Your task to perform on an android device: Clear the shopping cart on ebay.com. Image 0: 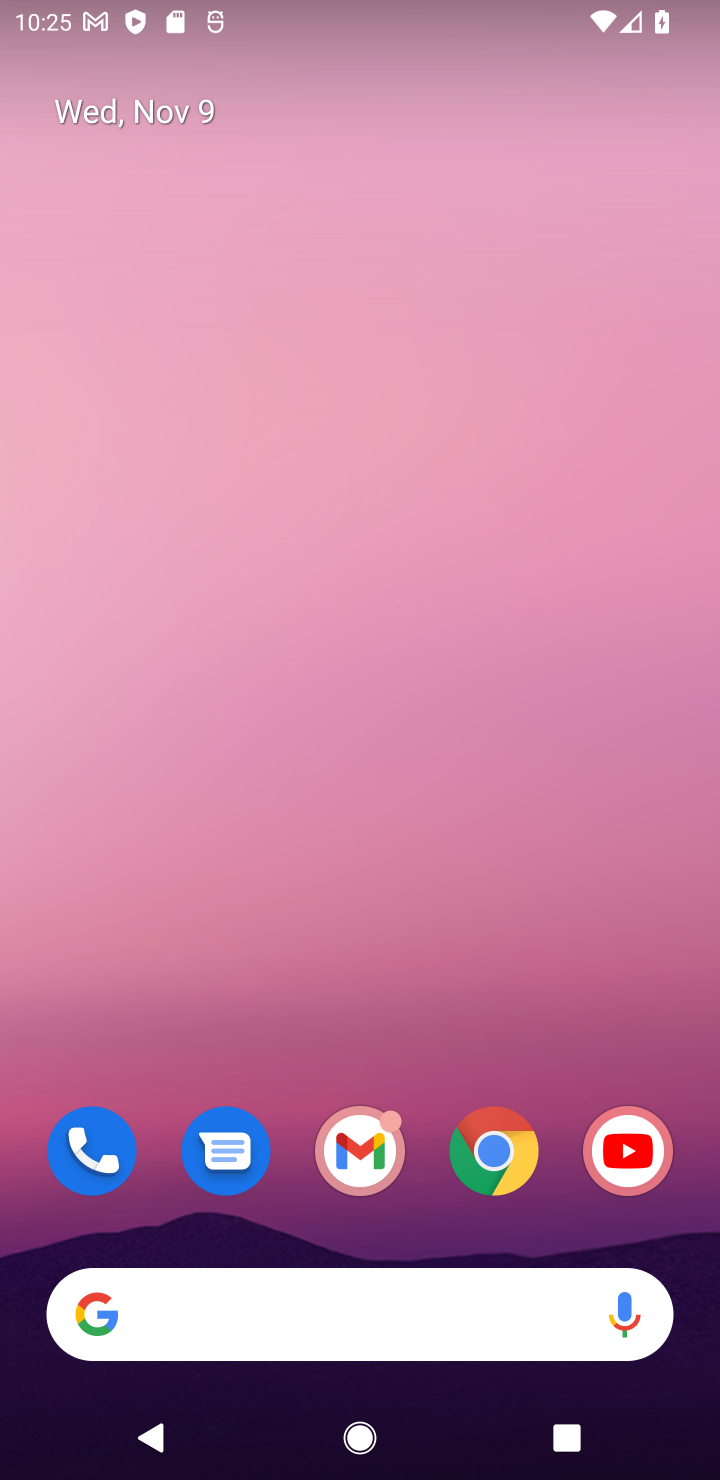
Step 0: click (482, 1152)
Your task to perform on an android device: Clear the shopping cart on ebay.com. Image 1: 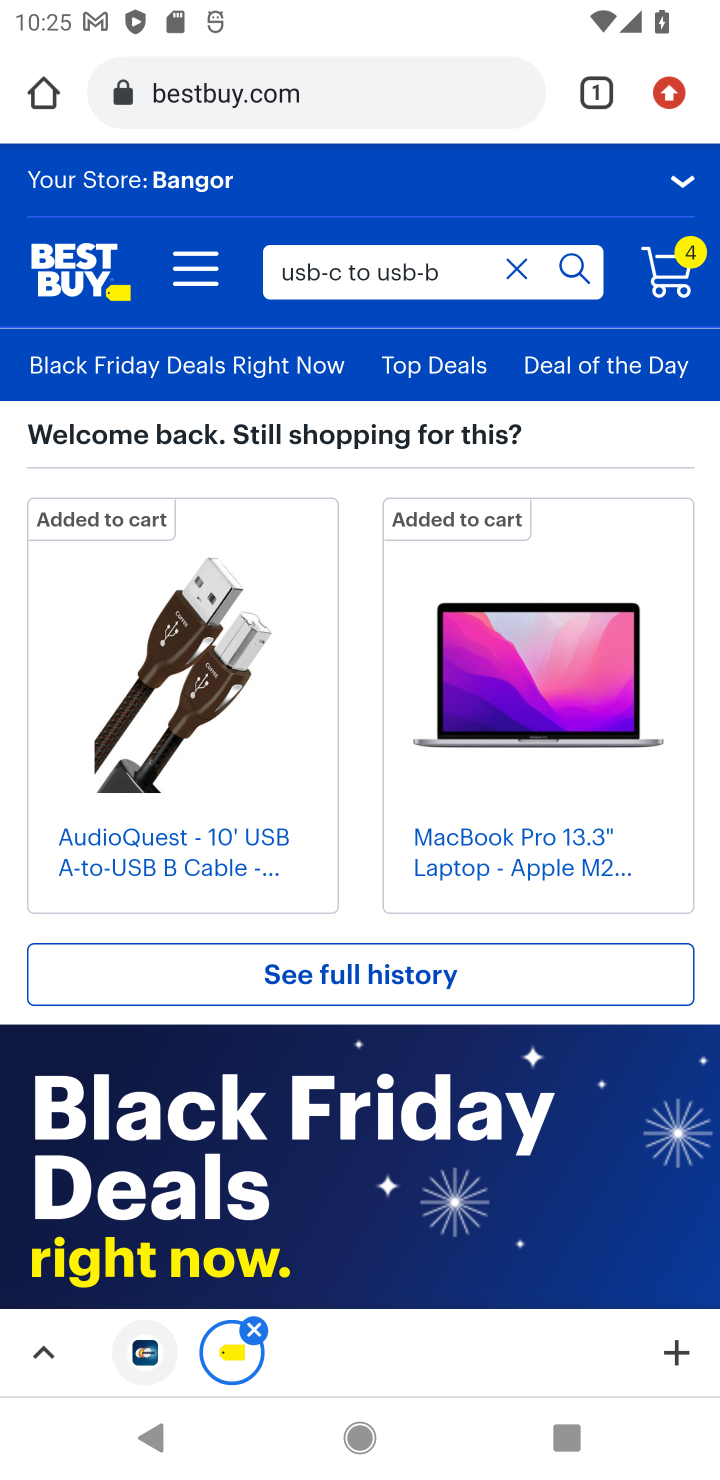
Step 1: click (313, 85)
Your task to perform on an android device: Clear the shopping cart on ebay.com. Image 2: 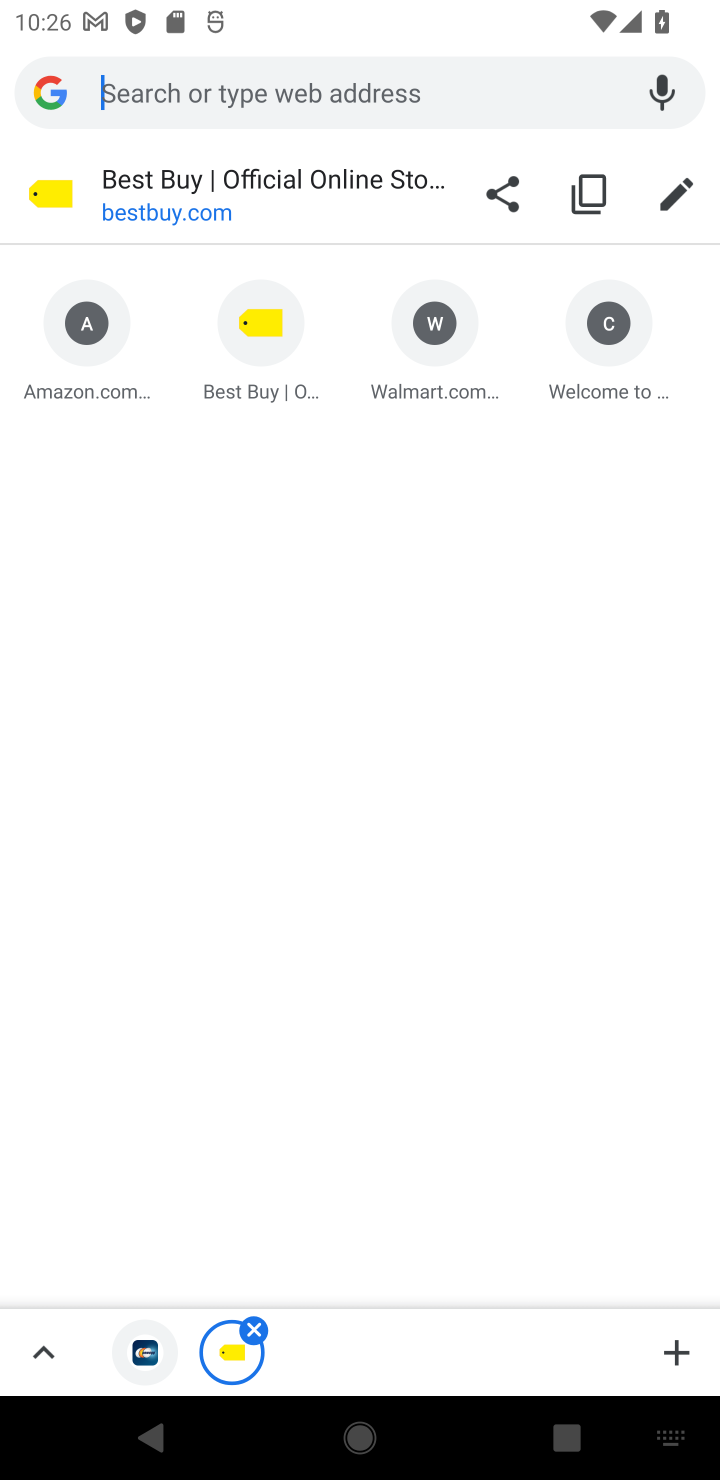
Step 2: type " ebay.com"
Your task to perform on an android device: Clear the shopping cart on ebay.com. Image 3: 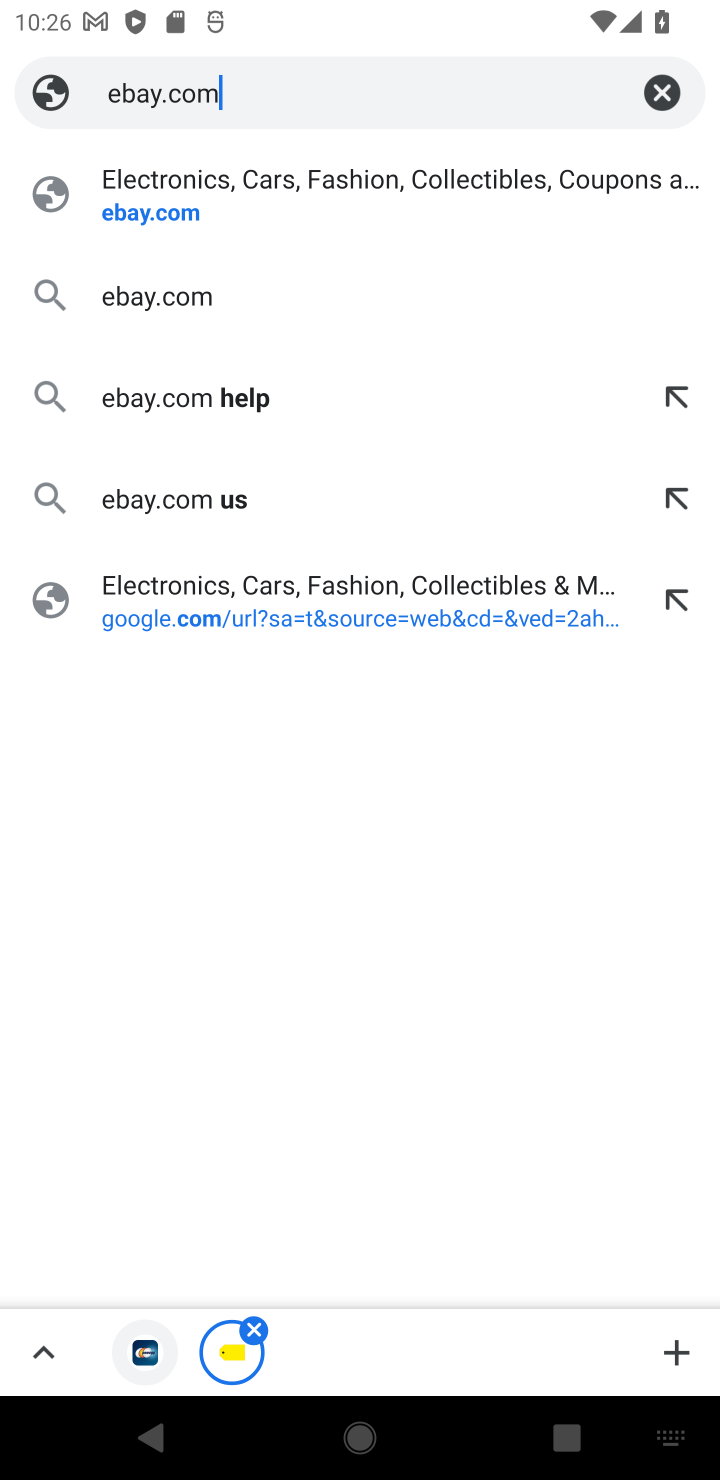
Step 3: click (197, 294)
Your task to perform on an android device: Clear the shopping cart on ebay.com. Image 4: 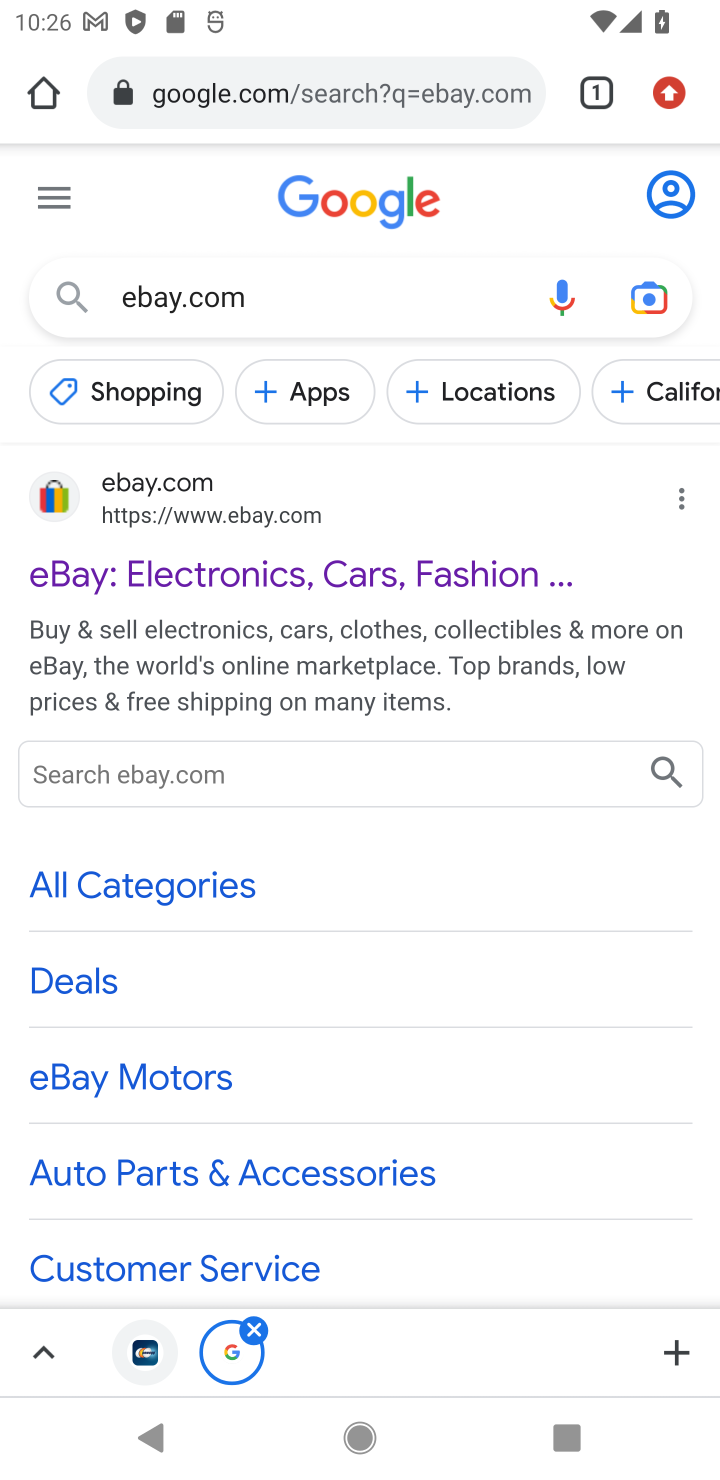
Step 4: click (270, 505)
Your task to perform on an android device: Clear the shopping cart on ebay.com. Image 5: 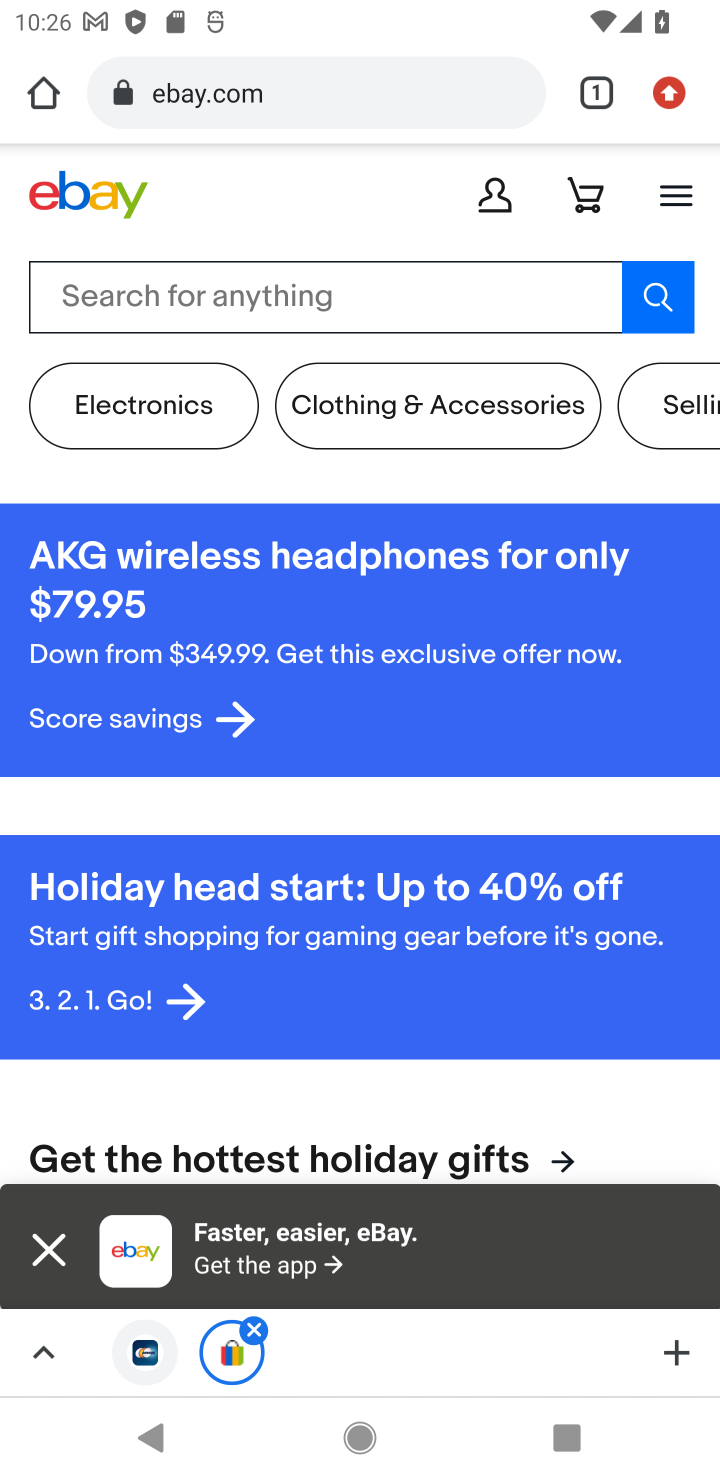
Step 5: click (680, 192)
Your task to perform on an android device: Clear the shopping cart on ebay.com. Image 6: 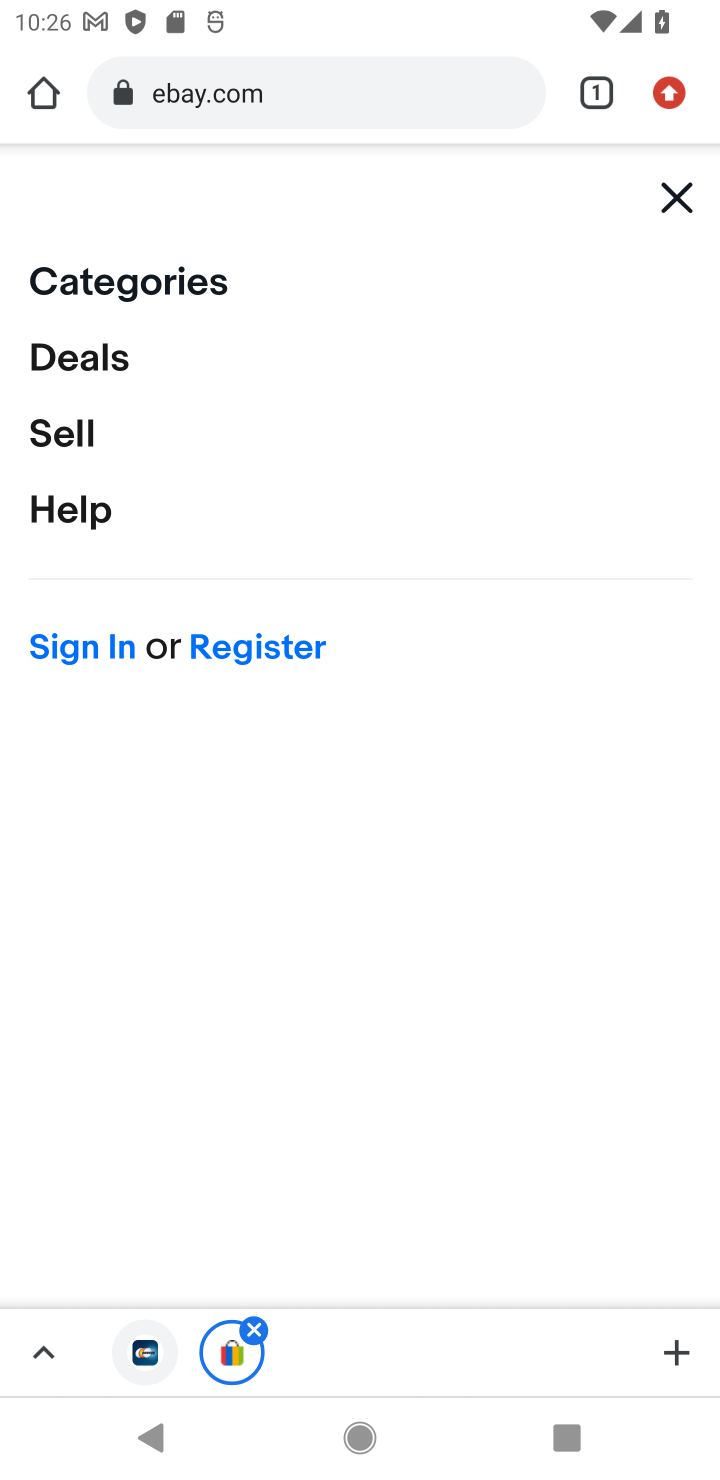
Step 6: click (669, 192)
Your task to perform on an android device: Clear the shopping cart on ebay.com. Image 7: 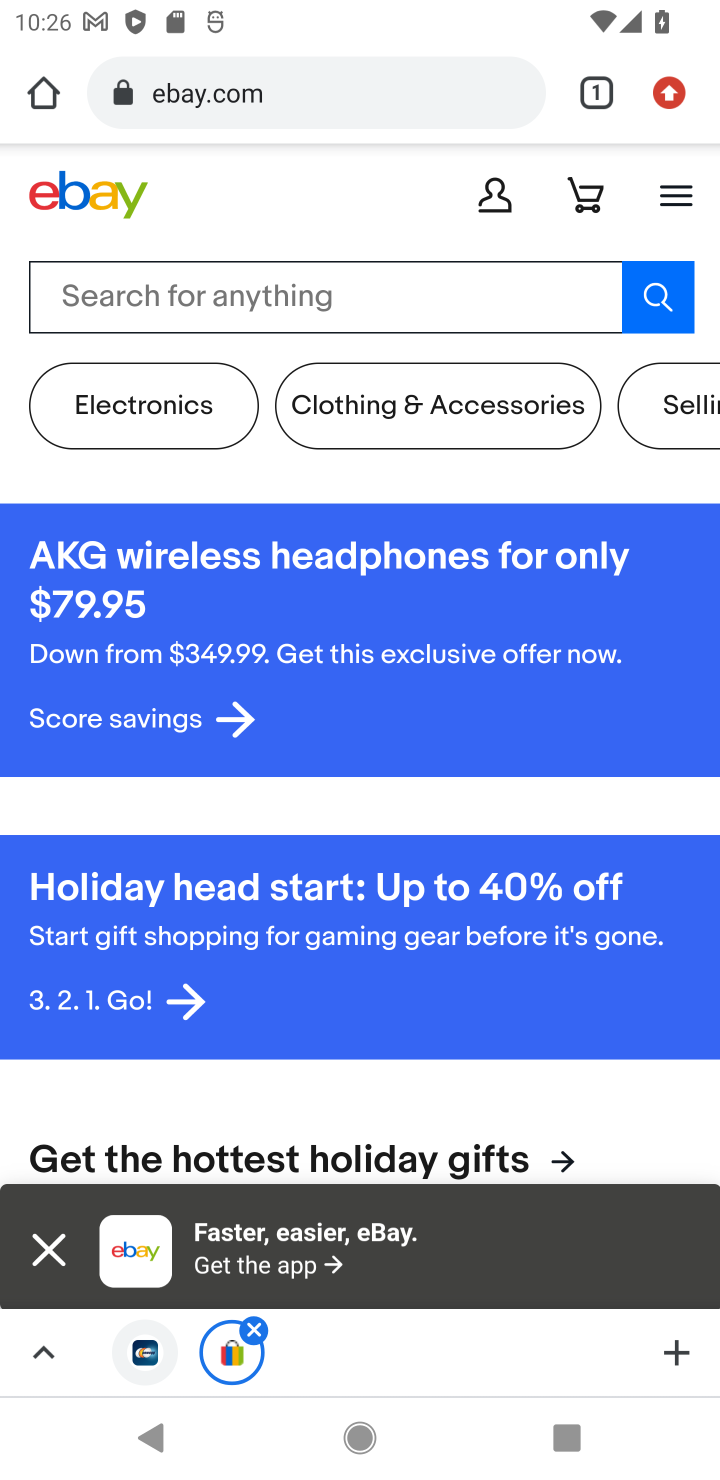
Step 7: click (587, 195)
Your task to perform on an android device: Clear the shopping cart on ebay.com. Image 8: 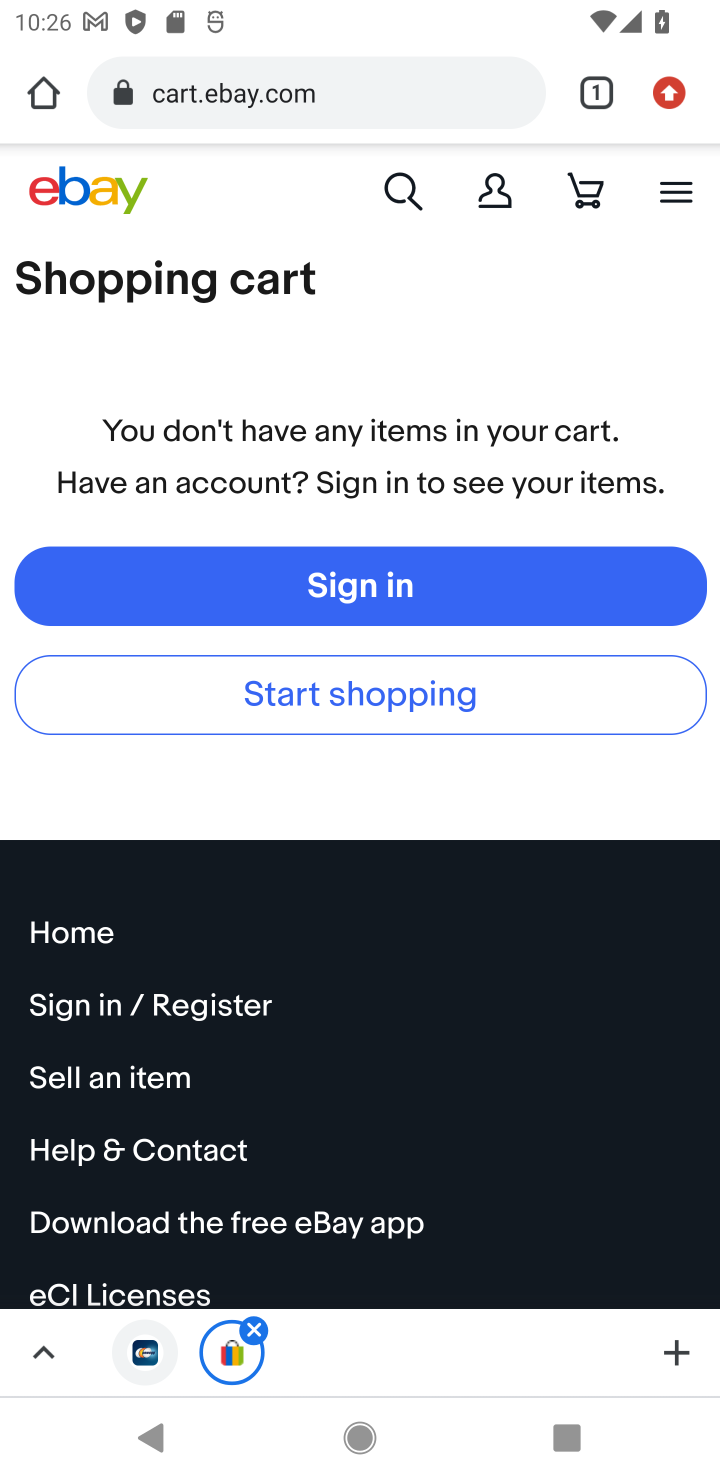
Step 8: task complete